Your task to perform on an android device: toggle translation in the chrome app Image 0: 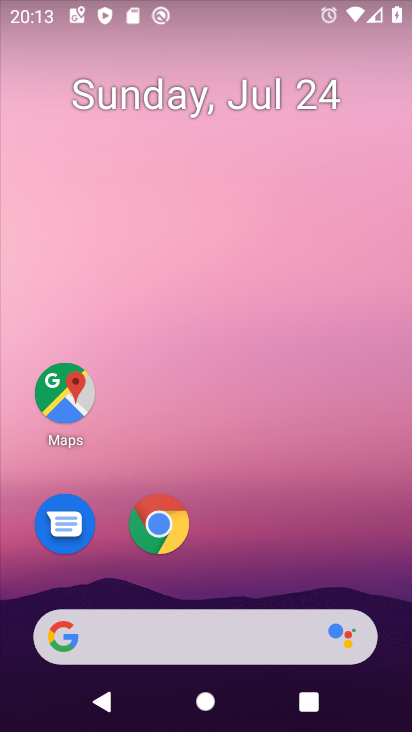
Step 0: click (160, 523)
Your task to perform on an android device: toggle translation in the chrome app Image 1: 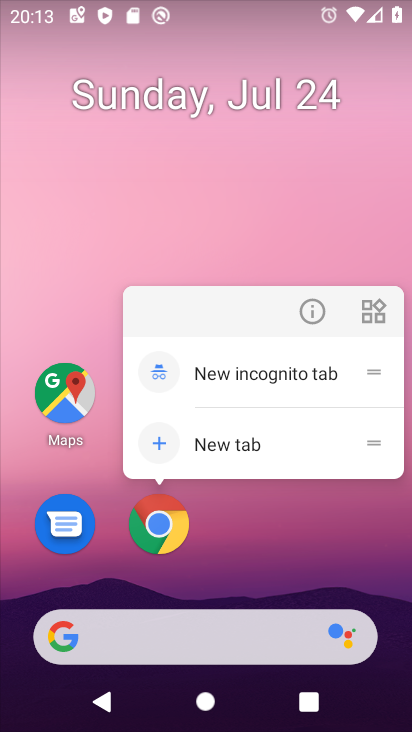
Step 1: click (160, 523)
Your task to perform on an android device: toggle translation in the chrome app Image 2: 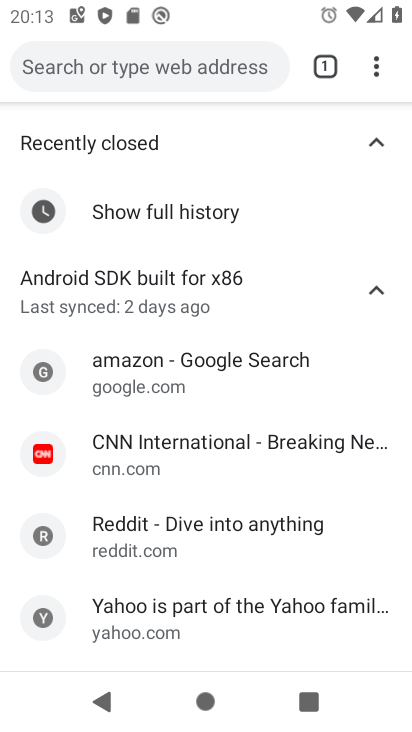
Step 2: click (375, 54)
Your task to perform on an android device: toggle translation in the chrome app Image 3: 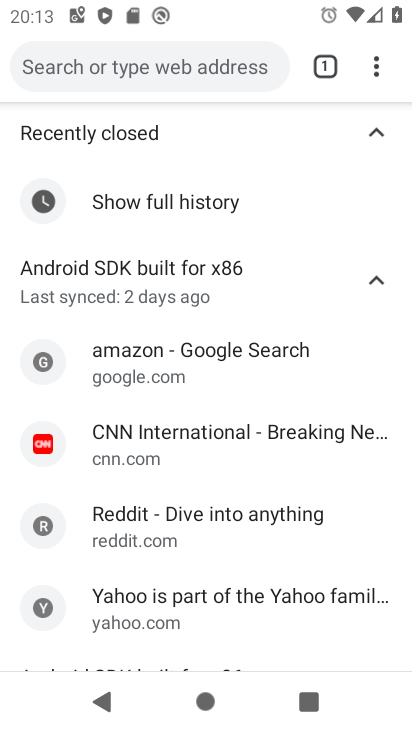
Step 3: click (378, 70)
Your task to perform on an android device: toggle translation in the chrome app Image 4: 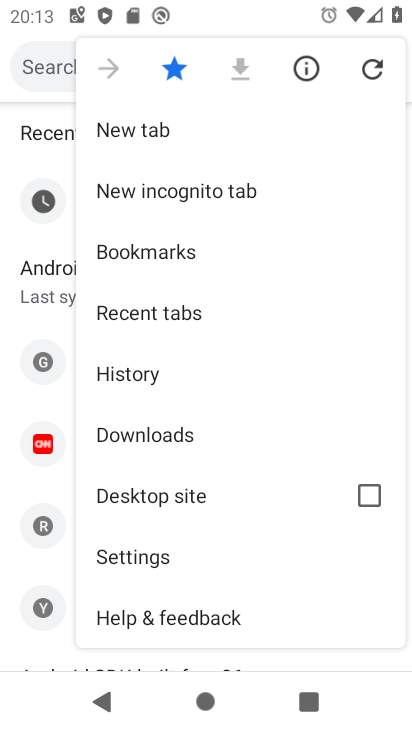
Step 4: click (158, 546)
Your task to perform on an android device: toggle translation in the chrome app Image 5: 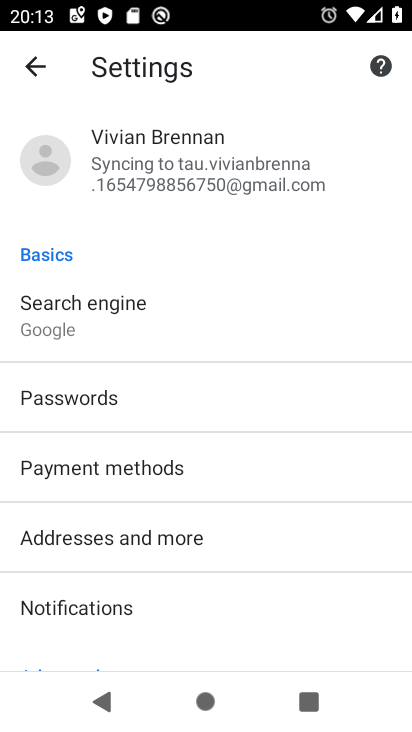
Step 5: drag from (225, 575) to (253, 71)
Your task to perform on an android device: toggle translation in the chrome app Image 6: 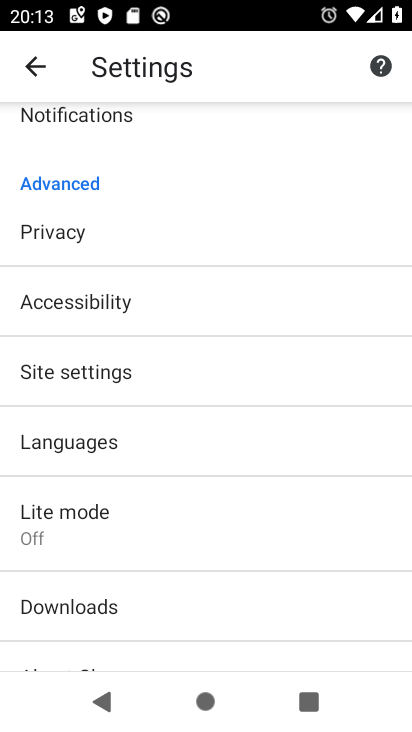
Step 6: click (197, 450)
Your task to perform on an android device: toggle translation in the chrome app Image 7: 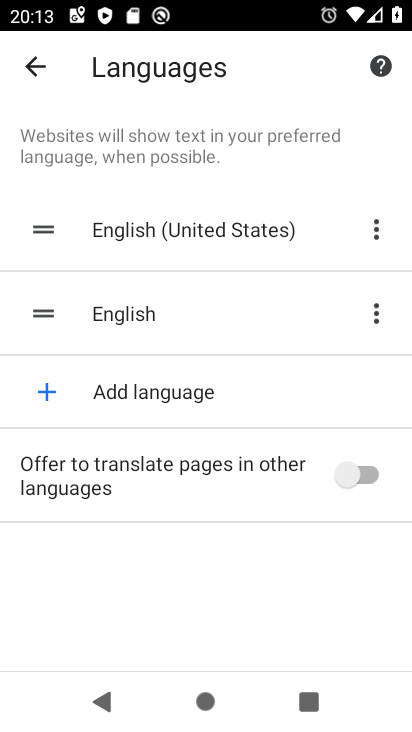
Step 7: click (363, 468)
Your task to perform on an android device: toggle translation in the chrome app Image 8: 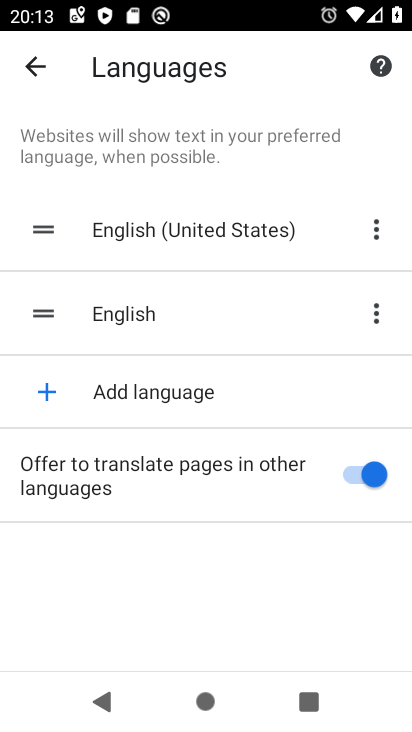
Step 8: task complete